Your task to perform on an android device: change text size in settings app Image 0: 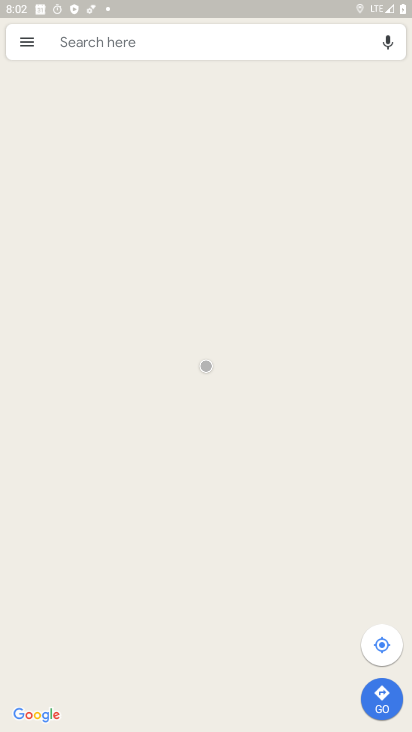
Step 0: drag from (218, 664) to (284, 255)
Your task to perform on an android device: change text size in settings app Image 1: 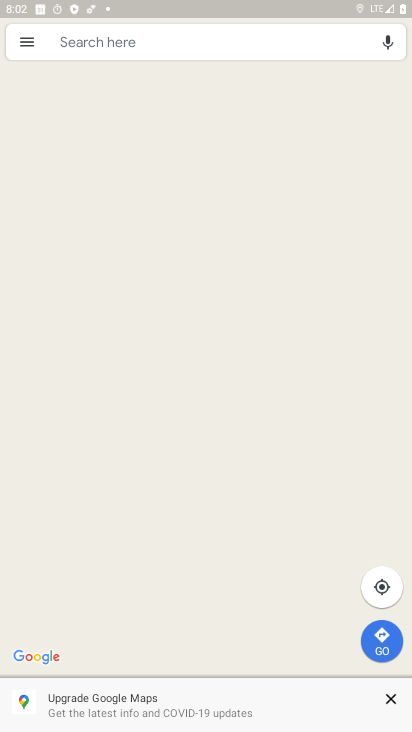
Step 1: press home button
Your task to perform on an android device: change text size in settings app Image 2: 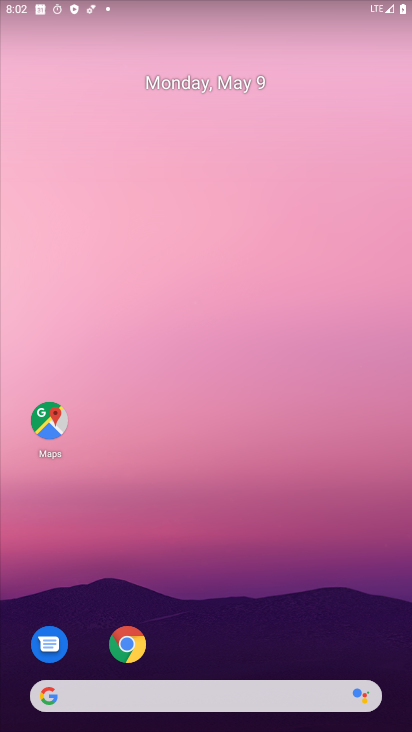
Step 2: drag from (187, 666) to (191, 240)
Your task to perform on an android device: change text size in settings app Image 3: 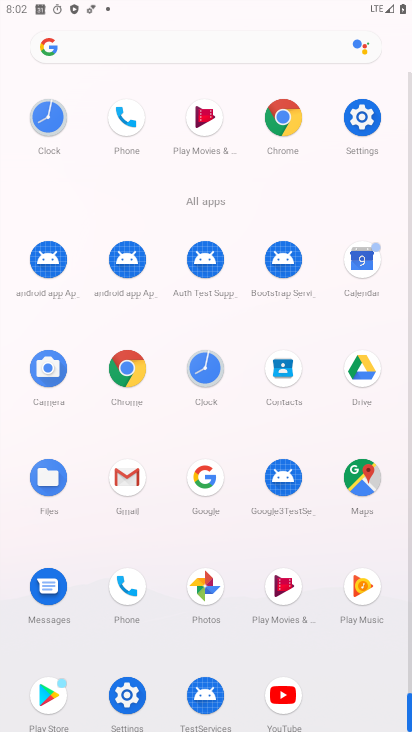
Step 3: click (120, 697)
Your task to perform on an android device: change text size in settings app Image 4: 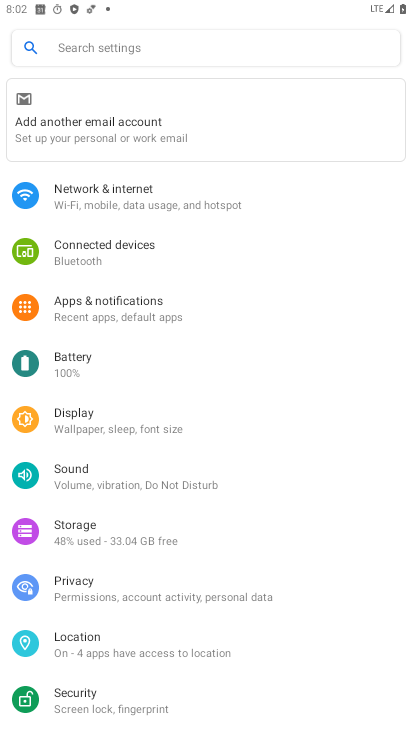
Step 4: click (113, 421)
Your task to perform on an android device: change text size in settings app Image 5: 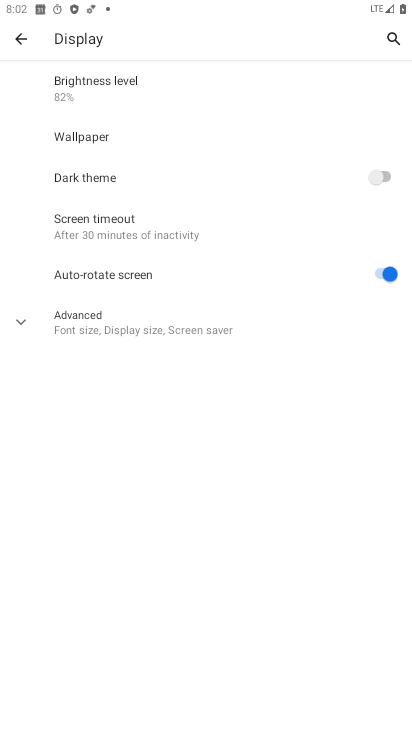
Step 5: click (117, 315)
Your task to perform on an android device: change text size in settings app Image 6: 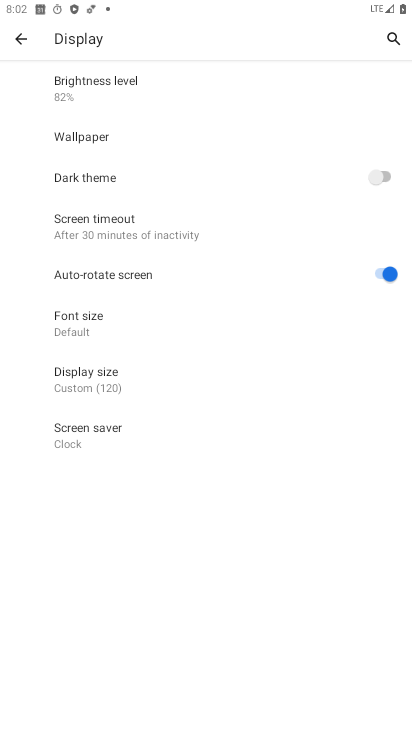
Step 6: click (92, 328)
Your task to perform on an android device: change text size in settings app Image 7: 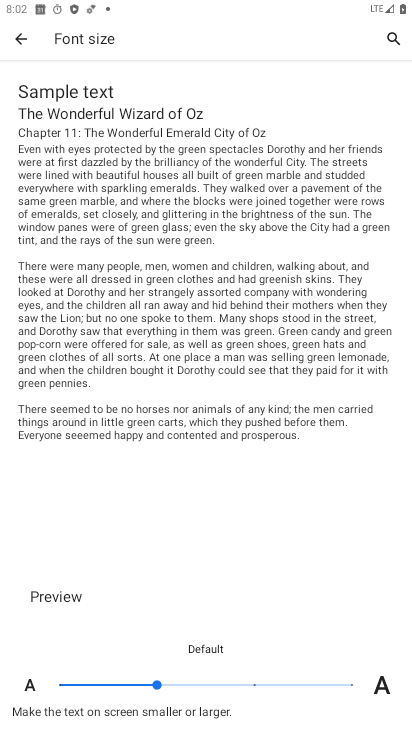
Step 7: click (132, 690)
Your task to perform on an android device: change text size in settings app Image 8: 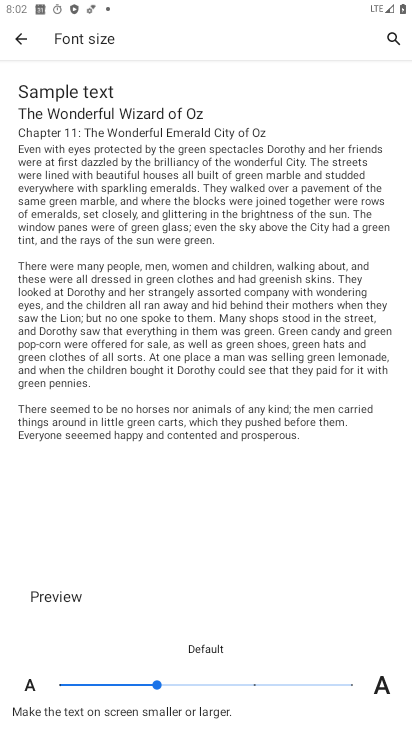
Step 8: task complete